Your task to perform on an android device: turn on notifications settings in the gmail app Image 0: 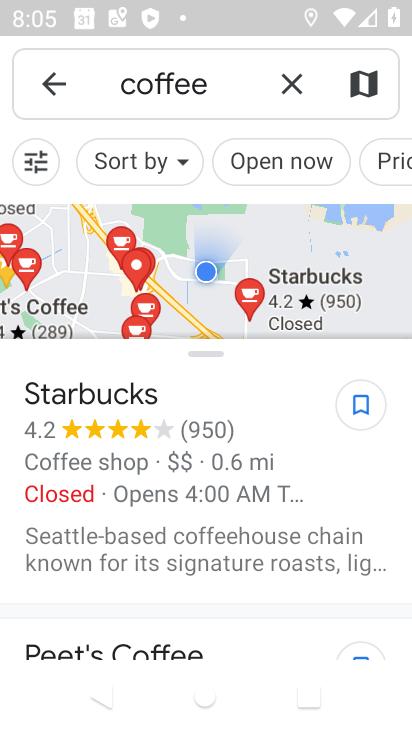
Step 0: press home button
Your task to perform on an android device: turn on notifications settings in the gmail app Image 1: 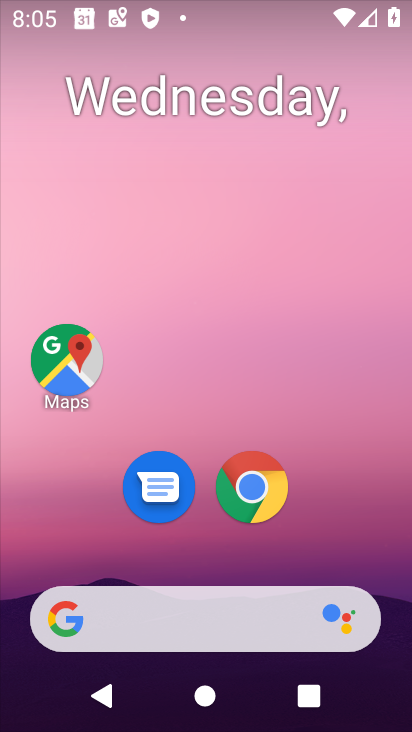
Step 1: drag from (353, 565) to (367, 255)
Your task to perform on an android device: turn on notifications settings in the gmail app Image 2: 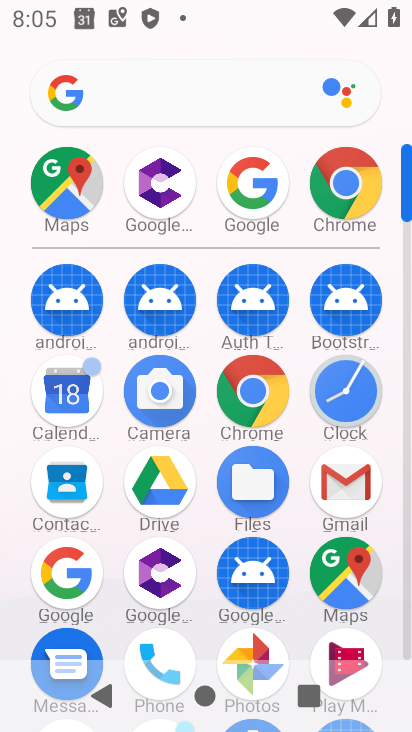
Step 2: click (361, 496)
Your task to perform on an android device: turn on notifications settings in the gmail app Image 3: 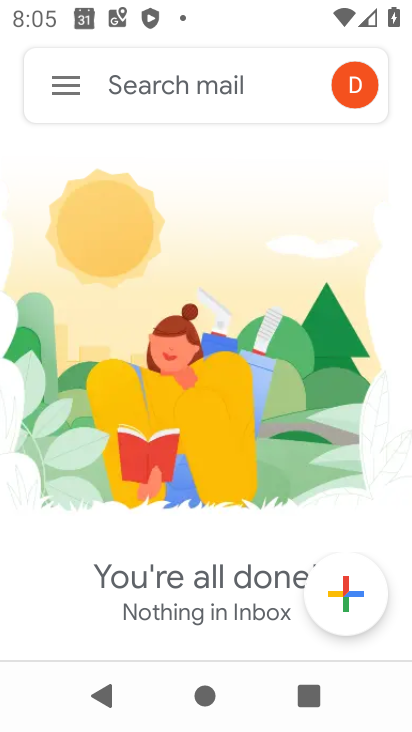
Step 3: click (65, 97)
Your task to perform on an android device: turn on notifications settings in the gmail app Image 4: 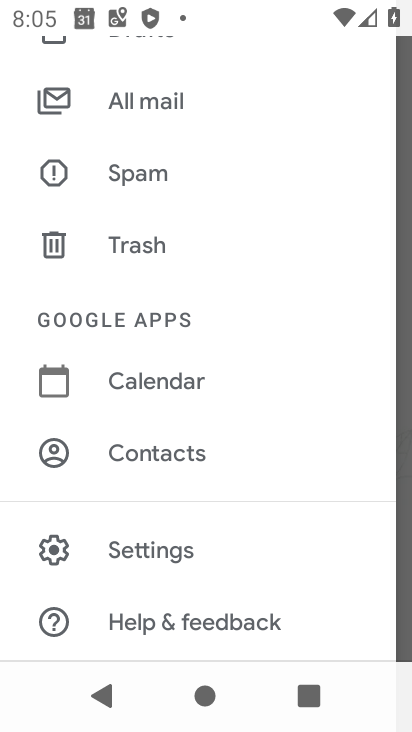
Step 4: drag from (307, 295) to (312, 339)
Your task to perform on an android device: turn on notifications settings in the gmail app Image 5: 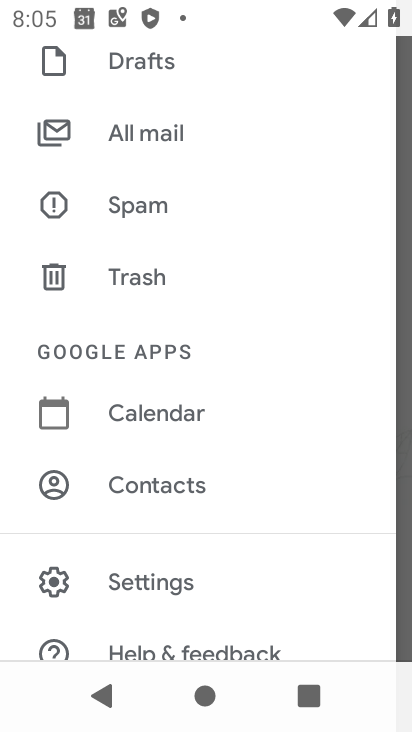
Step 5: drag from (312, 284) to (312, 378)
Your task to perform on an android device: turn on notifications settings in the gmail app Image 6: 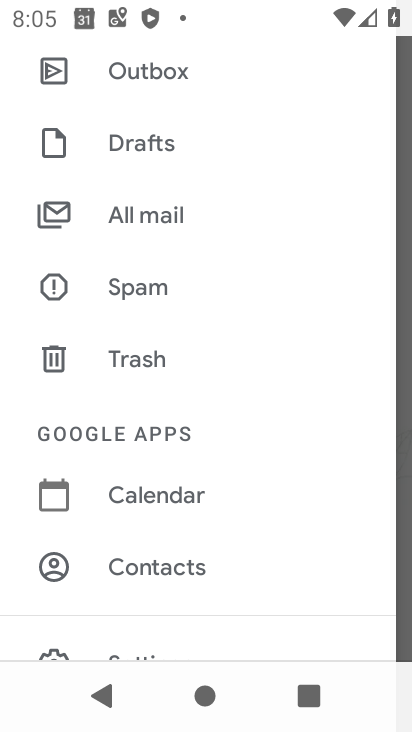
Step 6: drag from (306, 244) to (304, 347)
Your task to perform on an android device: turn on notifications settings in the gmail app Image 7: 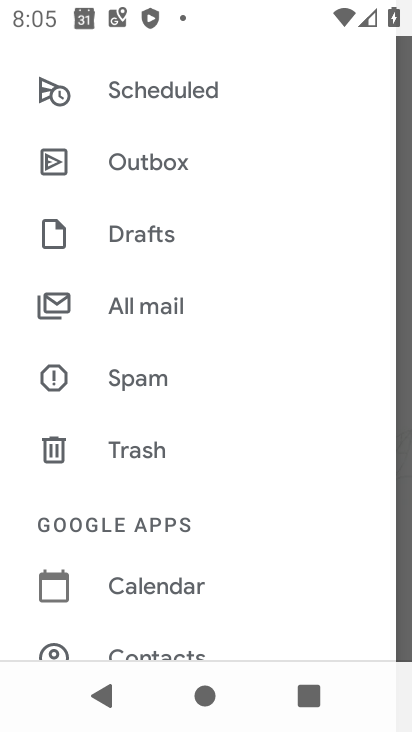
Step 7: drag from (303, 264) to (306, 335)
Your task to perform on an android device: turn on notifications settings in the gmail app Image 8: 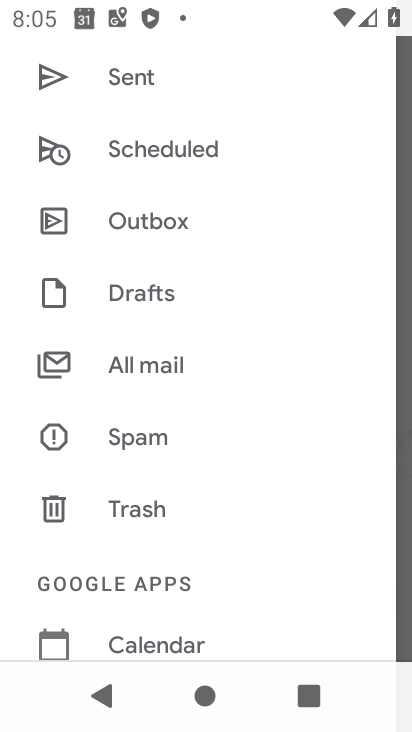
Step 8: drag from (312, 253) to (318, 345)
Your task to perform on an android device: turn on notifications settings in the gmail app Image 9: 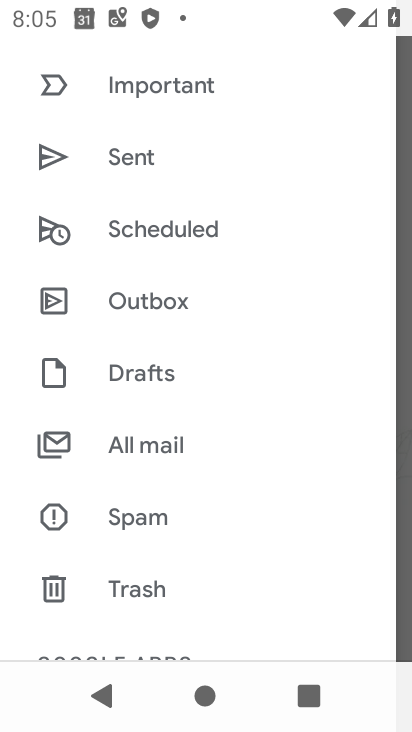
Step 9: drag from (318, 243) to (317, 340)
Your task to perform on an android device: turn on notifications settings in the gmail app Image 10: 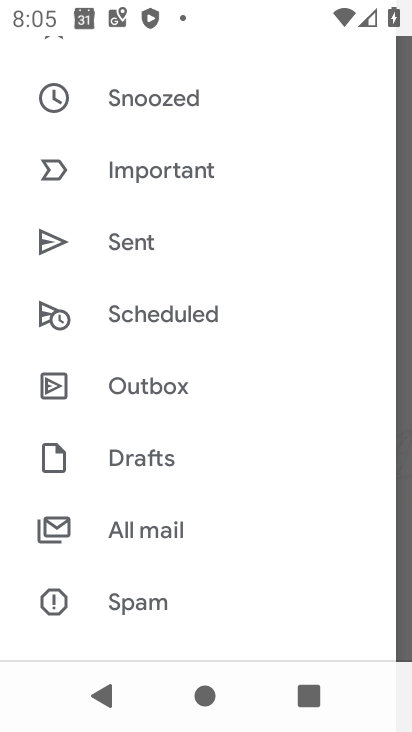
Step 10: drag from (318, 227) to (329, 347)
Your task to perform on an android device: turn on notifications settings in the gmail app Image 11: 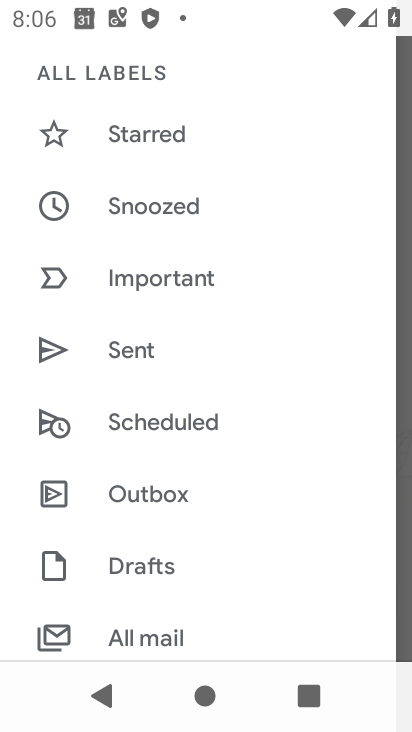
Step 11: drag from (319, 259) to (325, 350)
Your task to perform on an android device: turn on notifications settings in the gmail app Image 12: 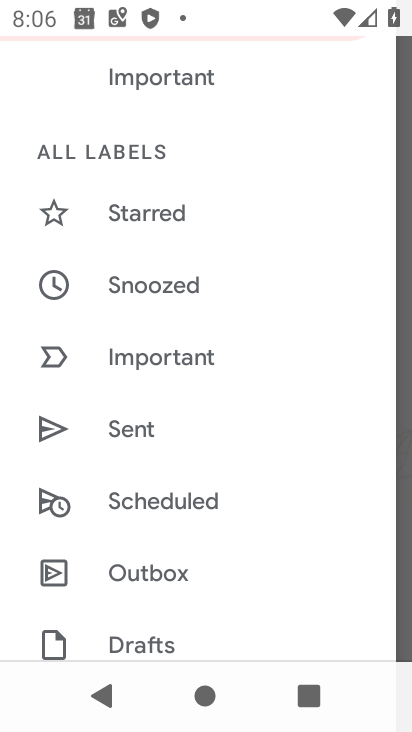
Step 12: drag from (323, 292) to (320, 378)
Your task to perform on an android device: turn on notifications settings in the gmail app Image 13: 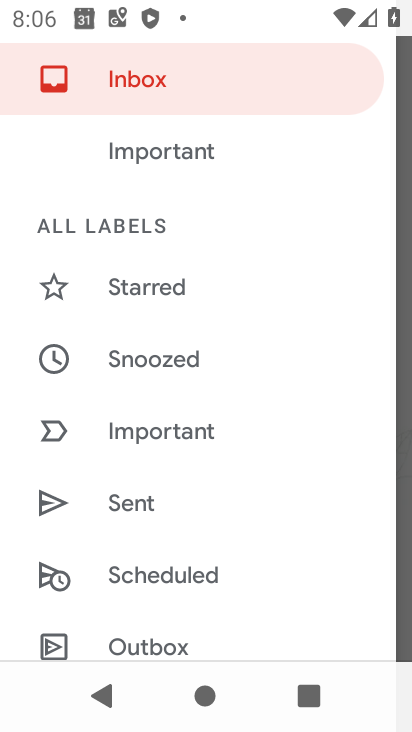
Step 13: drag from (306, 482) to (315, 386)
Your task to perform on an android device: turn on notifications settings in the gmail app Image 14: 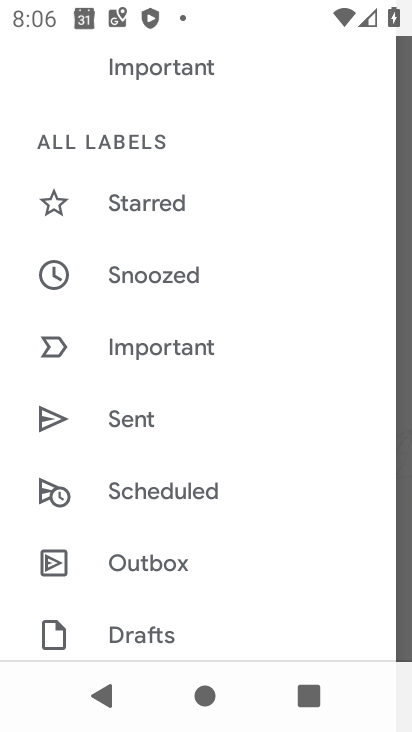
Step 14: drag from (311, 514) to (310, 381)
Your task to perform on an android device: turn on notifications settings in the gmail app Image 15: 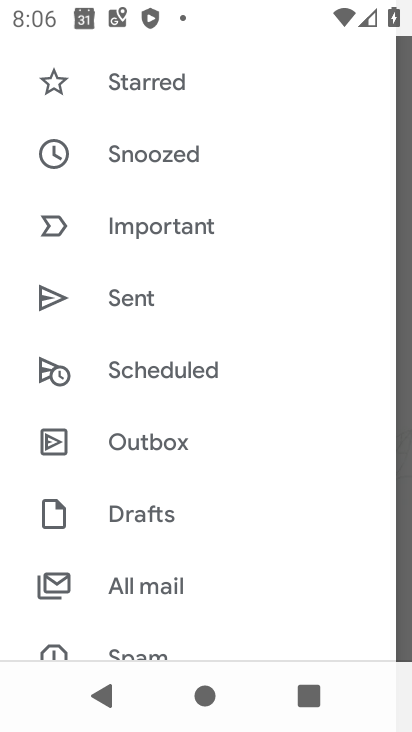
Step 15: drag from (299, 546) to (304, 451)
Your task to perform on an android device: turn on notifications settings in the gmail app Image 16: 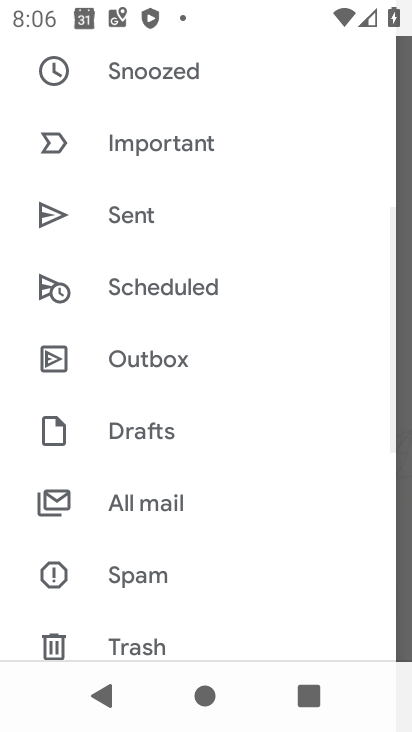
Step 16: drag from (291, 577) to (299, 480)
Your task to perform on an android device: turn on notifications settings in the gmail app Image 17: 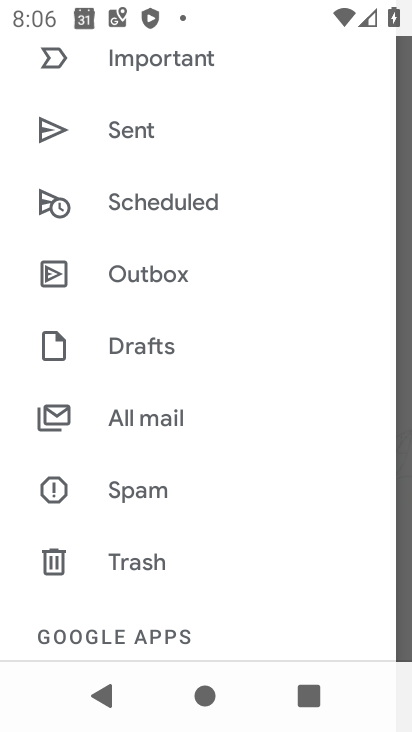
Step 17: drag from (284, 606) to (298, 488)
Your task to perform on an android device: turn on notifications settings in the gmail app Image 18: 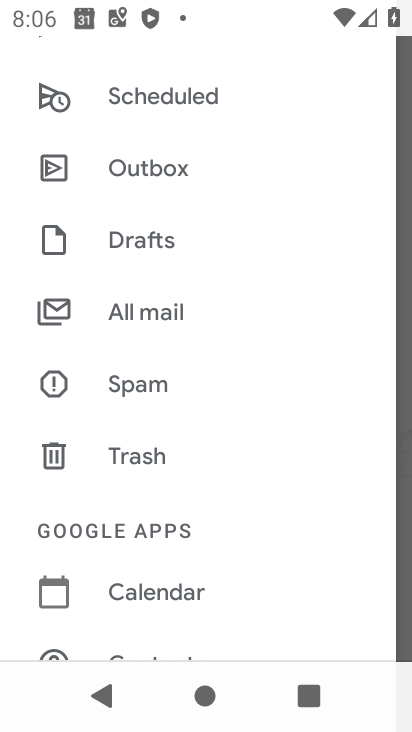
Step 18: drag from (289, 568) to (287, 466)
Your task to perform on an android device: turn on notifications settings in the gmail app Image 19: 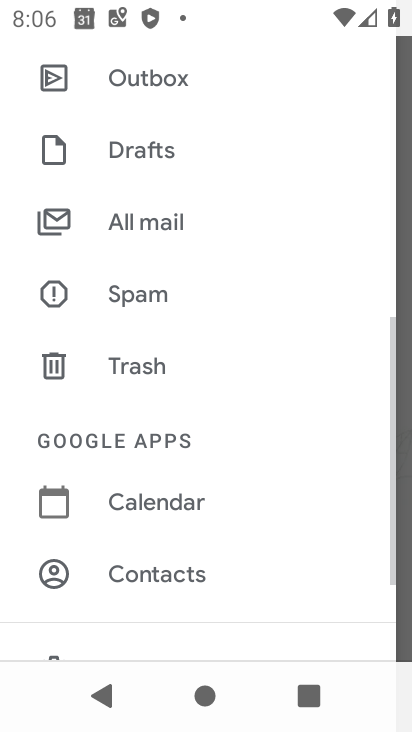
Step 19: drag from (292, 599) to (291, 478)
Your task to perform on an android device: turn on notifications settings in the gmail app Image 20: 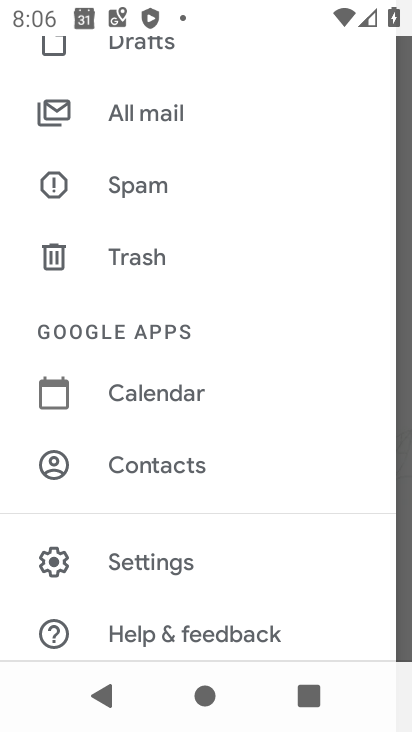
Step 20: click (252, 577)
Your task to perform on an android device: turn on notifications settings in the gmail app Image 21: 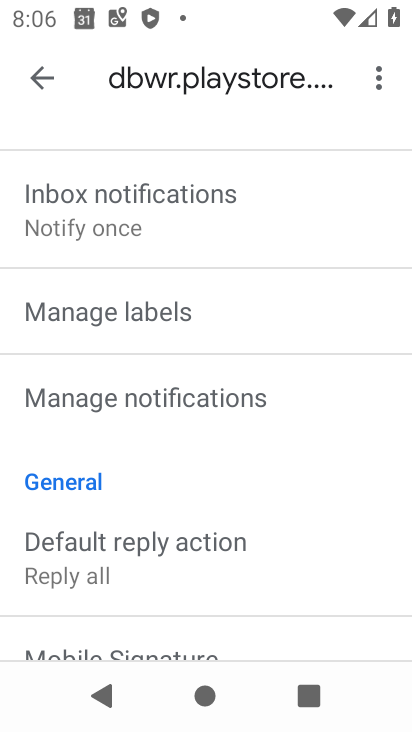
Step 21: drag from (272, 591) to (281, 486)
Your task to perform on an android device: turn on notifications settings in the gmail app Image 22: 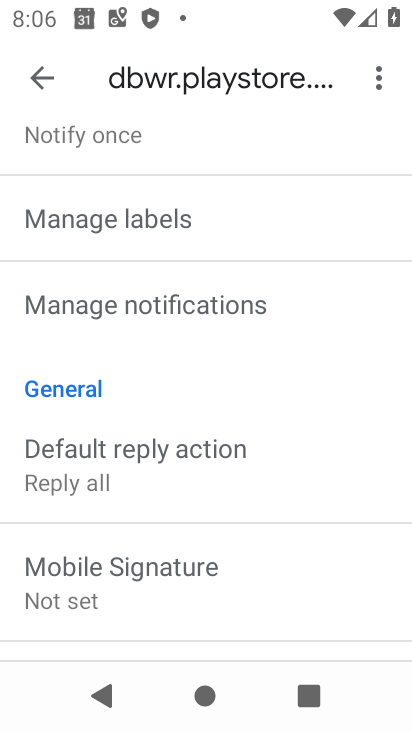
Step 22: drag from (281, 619) to (278, 521)
Your task to perform on an android device: turn on notifications settings in the gmail app Image 23: 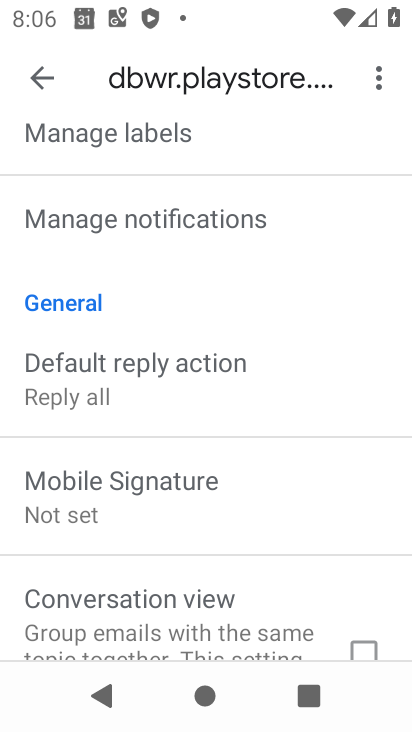
Step 23: drag from (286, 604) to (275, 482)
Your task to perform on an android device: turn on notifications settings in the gmail app Image 24: 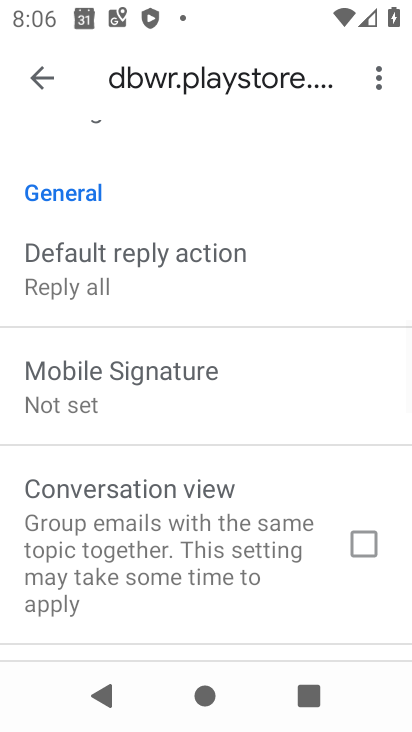
Step 24: drag from (283, 616) to (283, 517)
Your task to perform on an android device: turn on notifications settings in the gmail app Image 25: 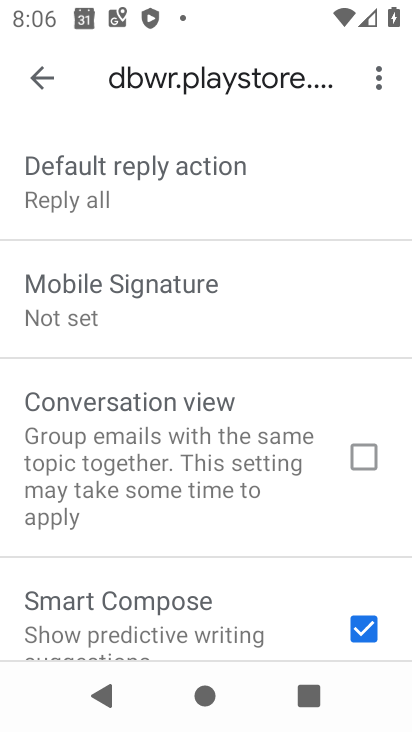
Step 25: drag from (283, 622) to (275, 535)
Your task to perform on an android device: turn on notifications settings in the gmail app Image 26: 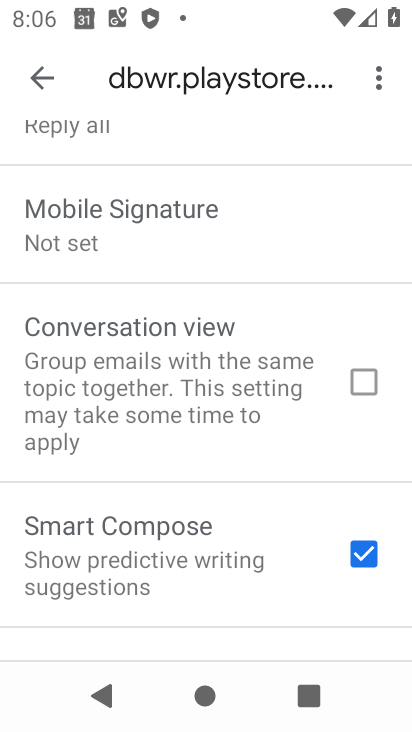
Step 26: drag from (278, 625) to (272, 512)
Your task to perform on an android device: turn on notifications settings in the gmail app Image 27: 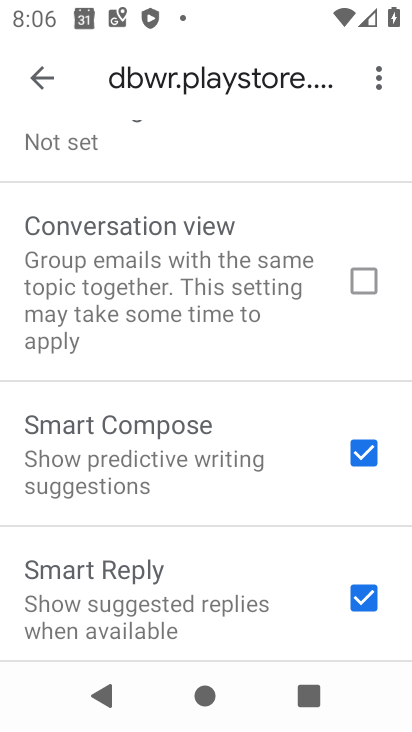
Step 27: drag from (273, 631) to (275, 524)
Your task to perform on an android device: turn on notifications settings in the gmail app Image 28: 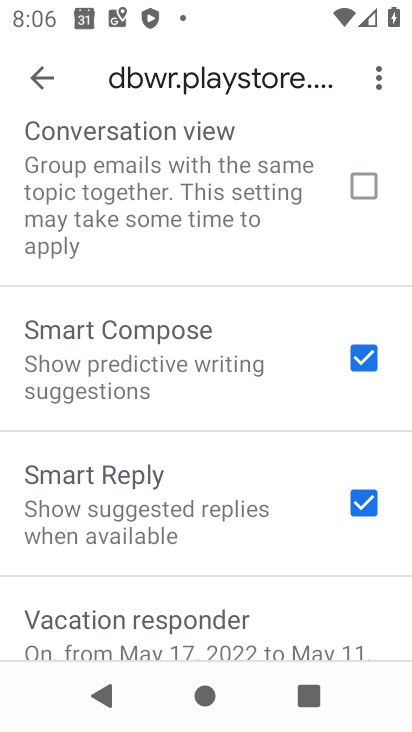
Step 28: drag from (287, 617) to (291, 541)
Your task to perform on an android device: turn on notifications settings in the gmail app Image 29: 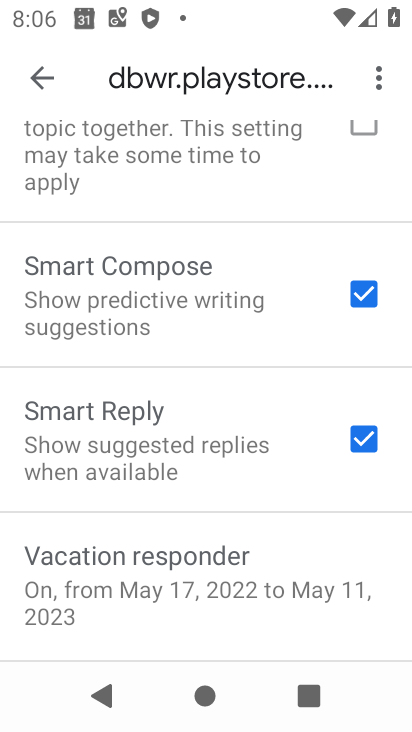
Step 29: drag from (281, 367) to (283, 459)
Your task to perform on an android device: turn on notifications settings in the gmail app Image 30: 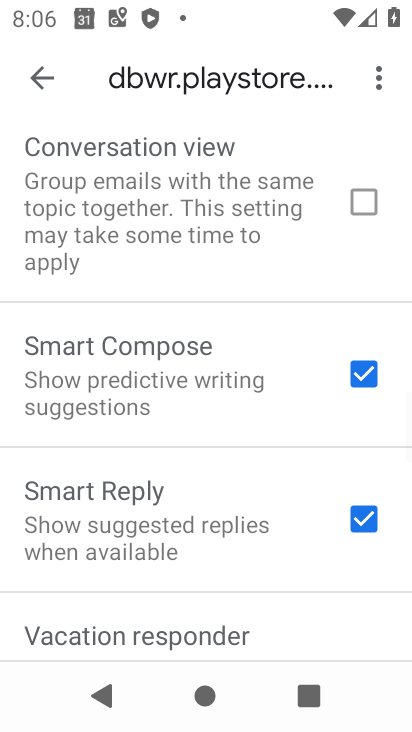
Step 30: drag from (292, 349) to (295, 452)
Your task to perform on an android device: turn on notifications settings in the gmail app Image 31: 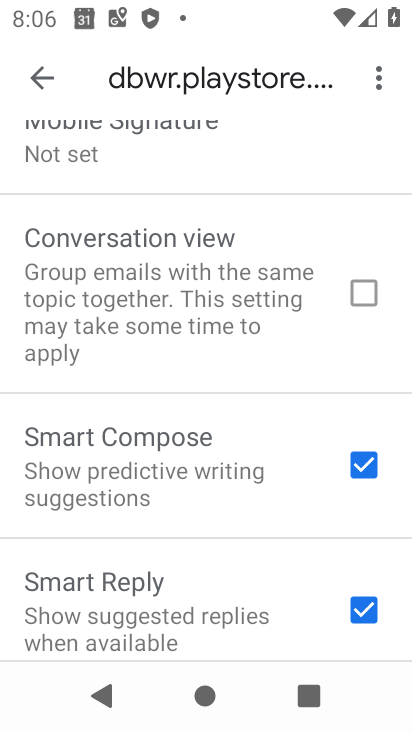
Step 31: drag from (295, 344) to (296, 452)
Your task to perform on an android device: turn on notifications settings in the gmail app Image 32: 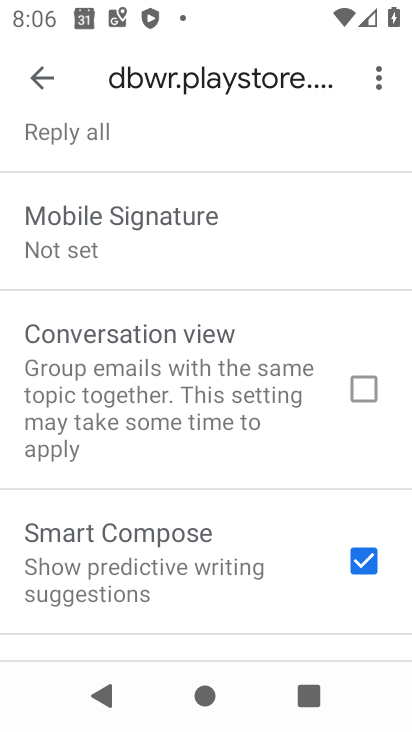
Step 32: drag from (290, 309) to (299, 437)
Your task to perform on an android device: turn on notifications settings in the gmail app Image 33: 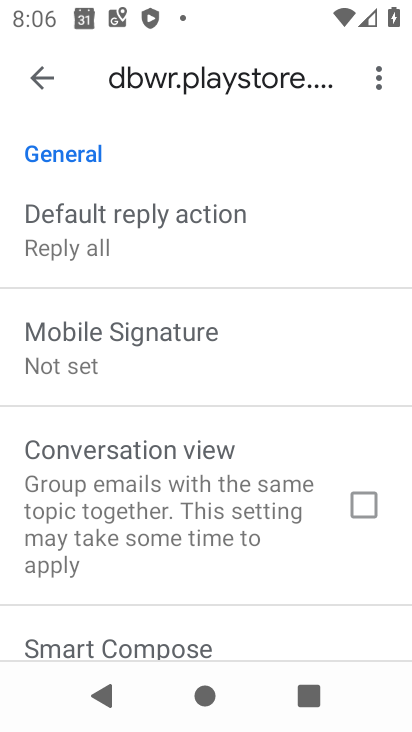
Step 33: drag from (299, 316) to (293, 401)
Your task to perform on an android device: turn on notifications settings in the gmail app Image 34: 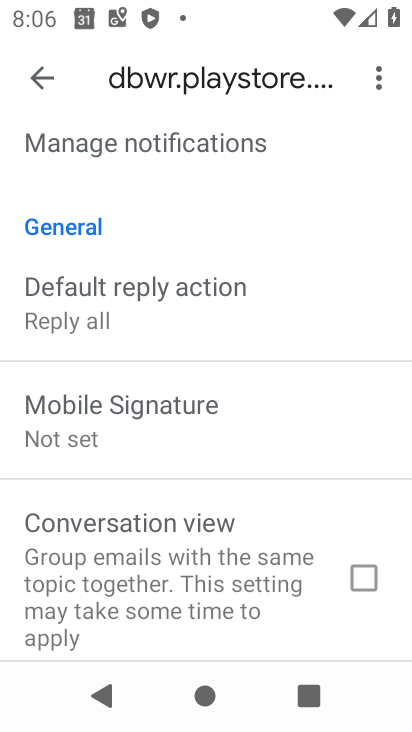
Step 34: drag from (291, 254) to (285, 366)
Your task to perform on an android device: turn on notifications settings in the gmail app Image 35: 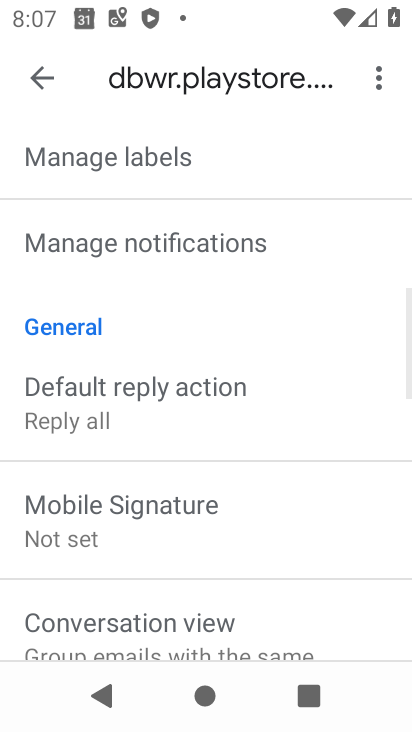
Step 35: click (246, 249)
Your task to perform on an android device: turn on notifications settings in the gmail app Image 36: 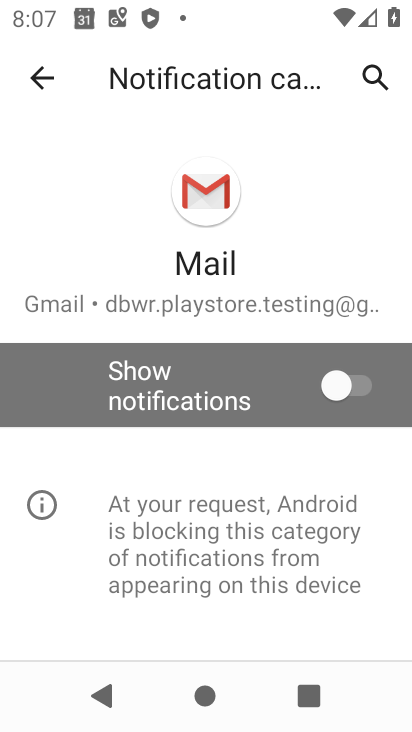
Step 36: click (337, 384)
Your task to perform on an android device: turn on notifications settings in the gmail app Image 37: 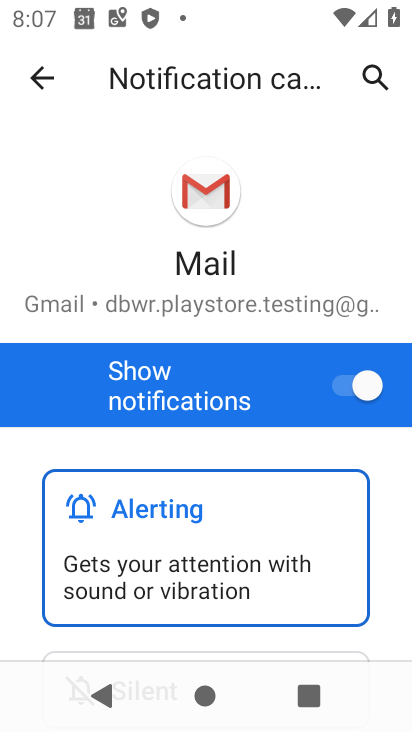
Step 37: task complete